Your task to perform on an android device: turn off sleep mode Image 0: 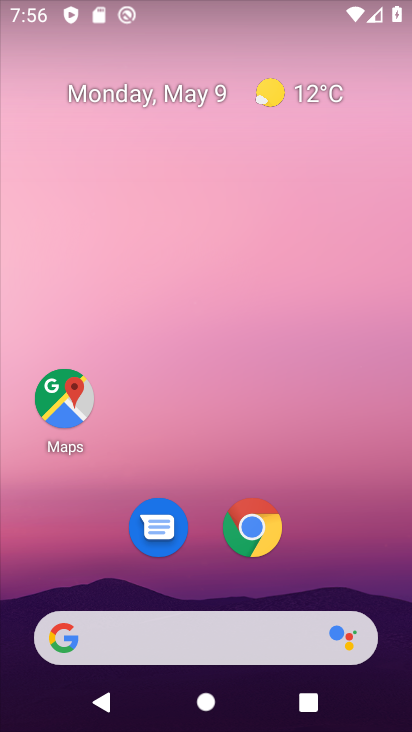
Step 0: drag from (306, 519) to (335, 162)
Your task to perform on an android device: turn off sleep mode Image 1: 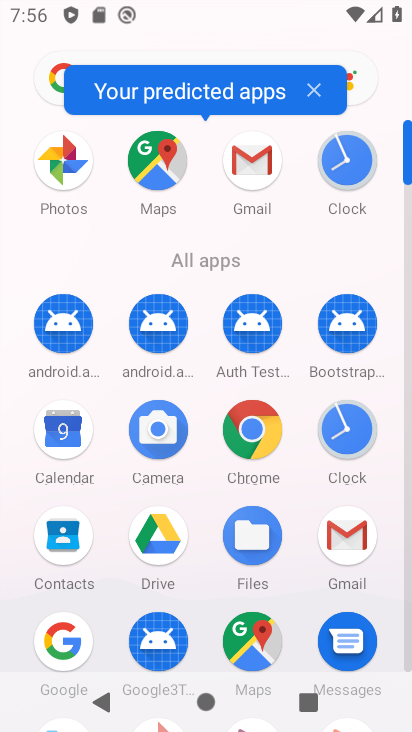
Step 1: drag from (260, 611) to (297, 221)
Your task to perform on an android device: turn off sleep mode Image 2: 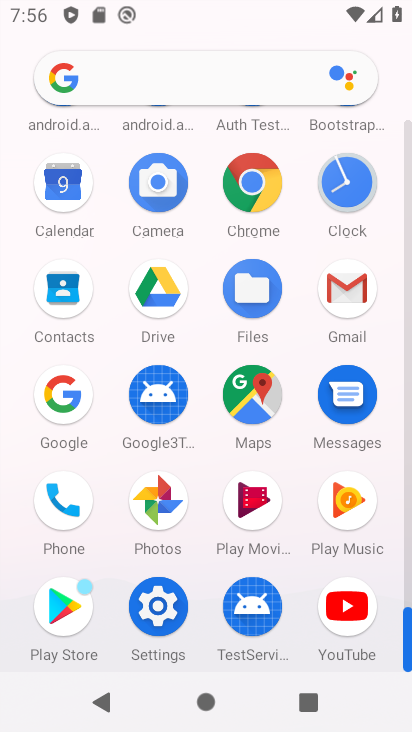
Step 2: click (164, 612)
Your task to perform on an android device: turn off sleep mode Image 3: 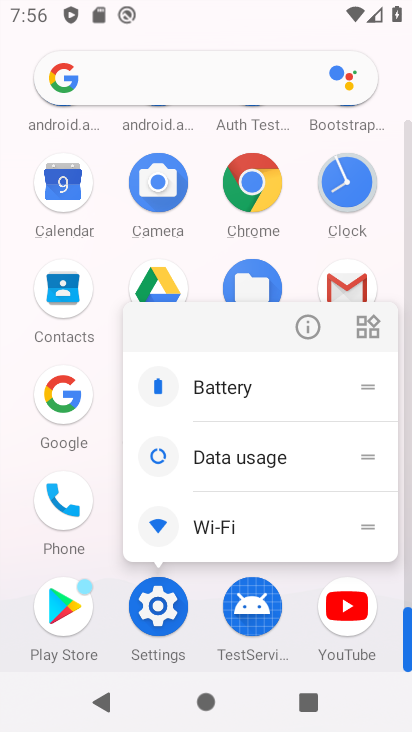
Step 3: click (164, 619)
Your task to perform on an android device: turn off sleep mode Image 4: 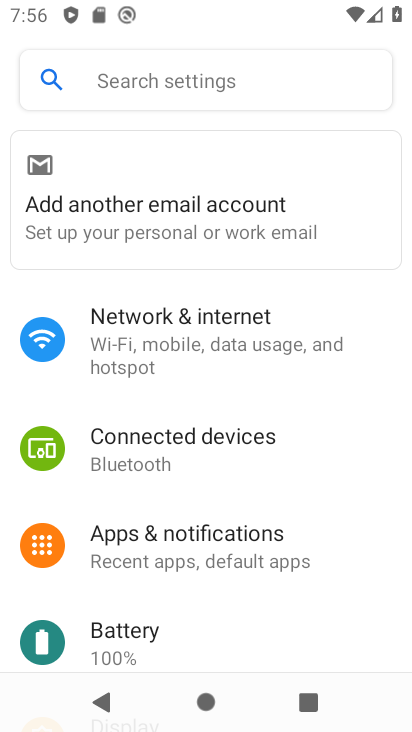
Step 4: drag from (264, 464) to (289, 98)
Your task to perform on an android device: turn off sleep mode Image 5: 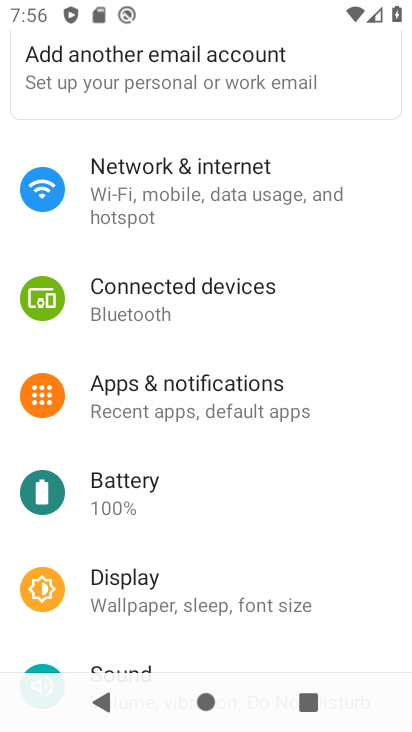
Step 5: click (212, 582)
Your task to perform on an android device: turn off sleep mode Image 6: 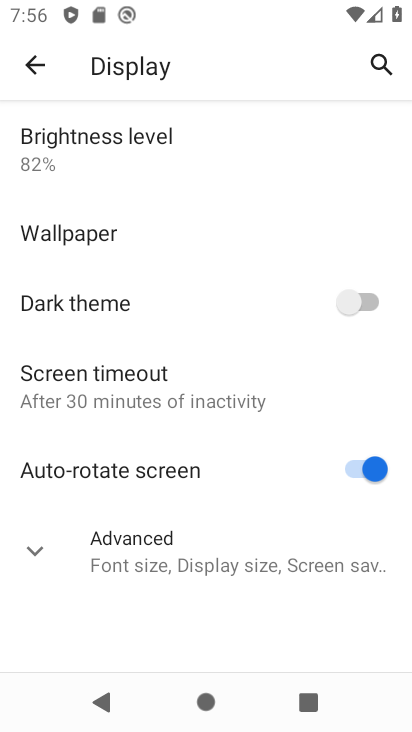
Step 6: click (195, 383)
Your task to perform on an android device: turn off sleep mode Image 7: 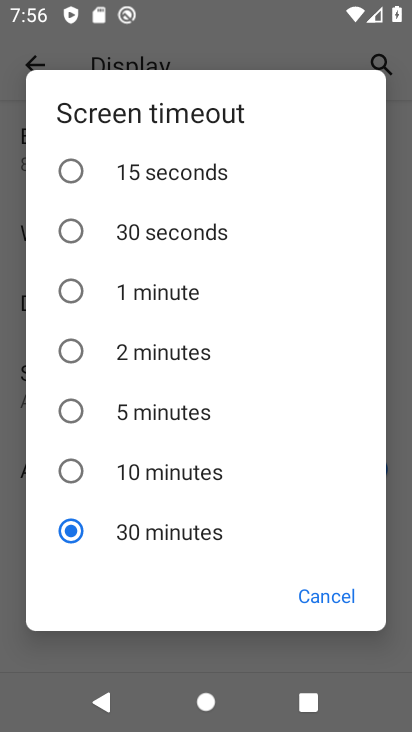
Step 7: task complete